Your task to perform on an android device: open app "Google Play Music" Image 0: 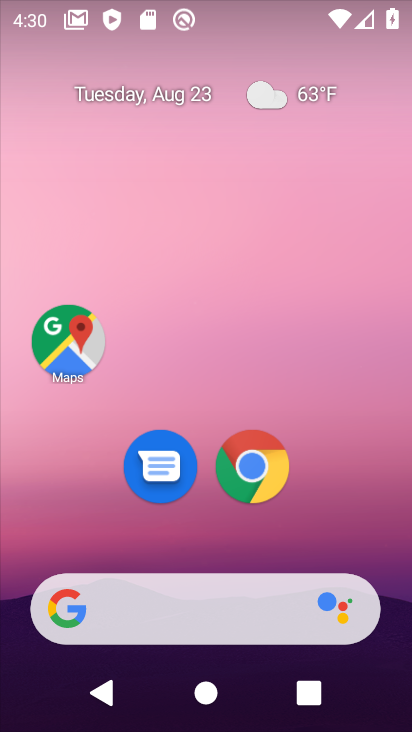
Step 0: drag from (236, 570) to (159, 5)
Your task to perform on an android device: open app "Google Play Music" Image 1: 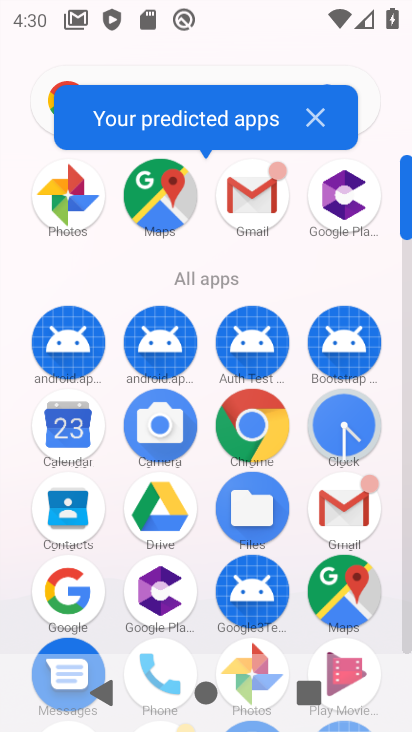
Step 1: drag from (177, 557) to (185, 230)
Your task to perform on an android device: open app "Google Play Music" Image 2: 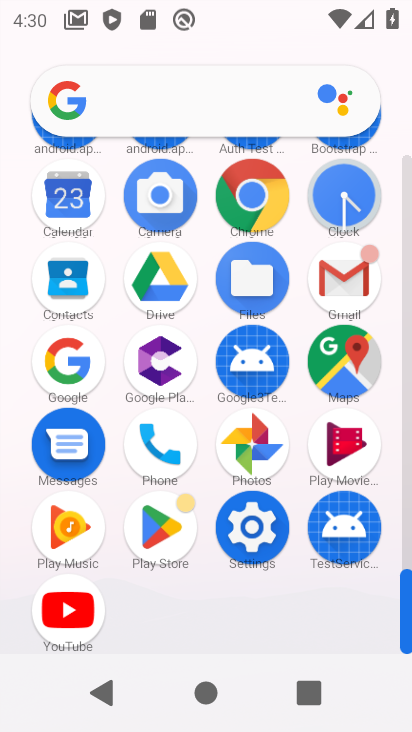
Step 2: click (175, 543)
Your task to perform on an android device: open app "Google Play Music" Image 3: 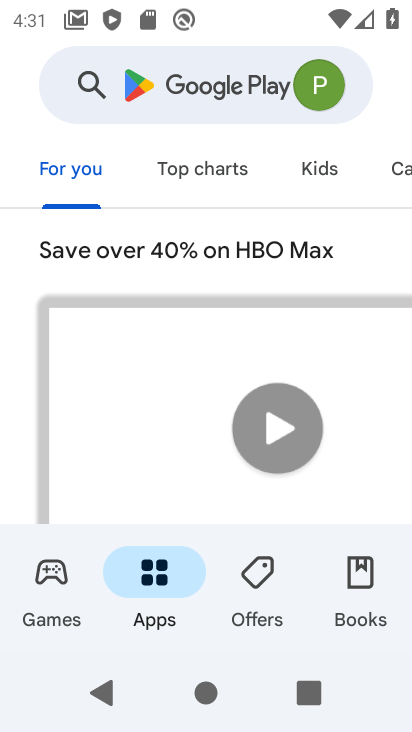
Step 3: click (210, 92)
Your task to perform on an android device: open app "Google Play Music" Image 4: 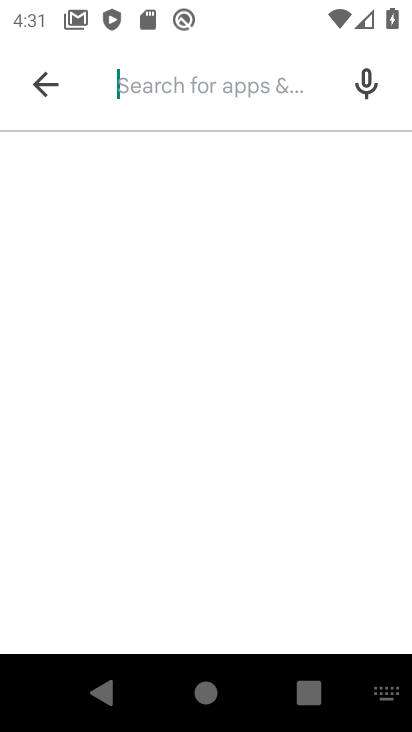
Step 4: type "google play music"
Your task to perform on an android device: open app "Google Play Music" Image 5: 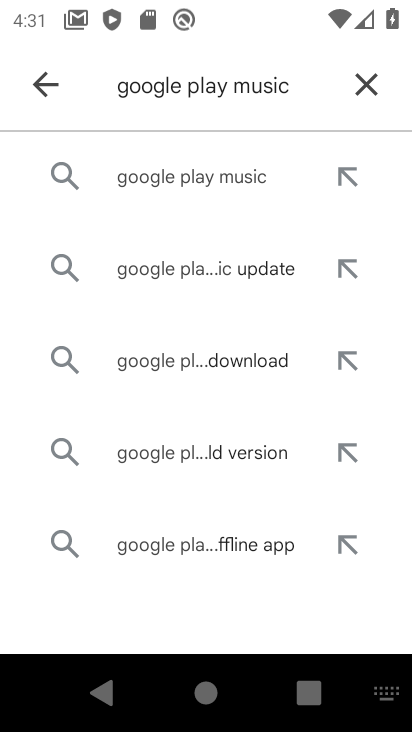
Step 5: click (213, 188)
Your task to perform on an android device: open app "Google Play Music" Image 6: 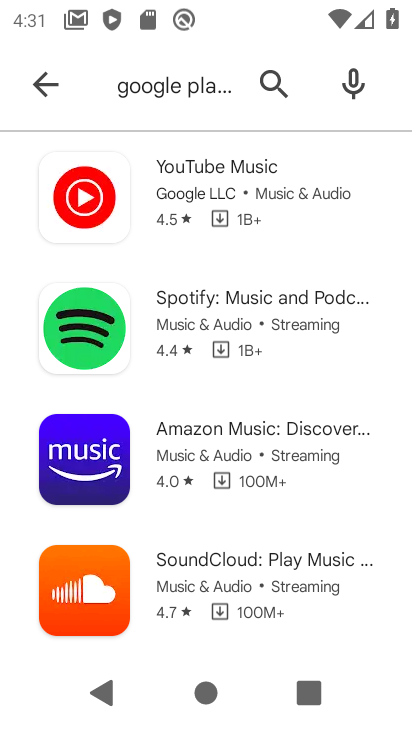
Step 6: task complete